Your task to perform on an android device: Go to display settings Image 0: 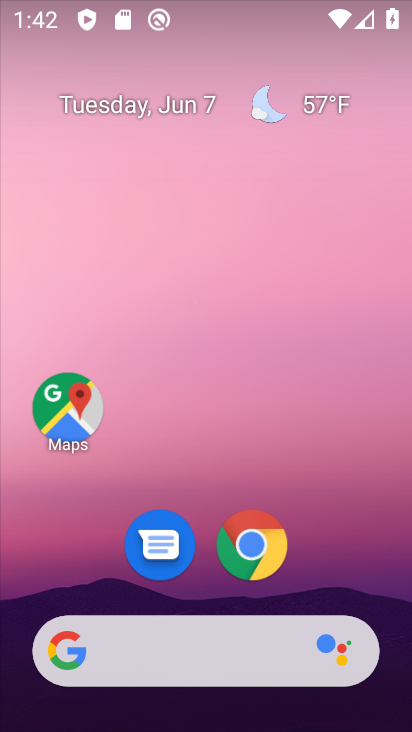
Step 0: drag from (354, 565) to (136, 3)
Your task to perform on an android device: Go to display settings Image 1: 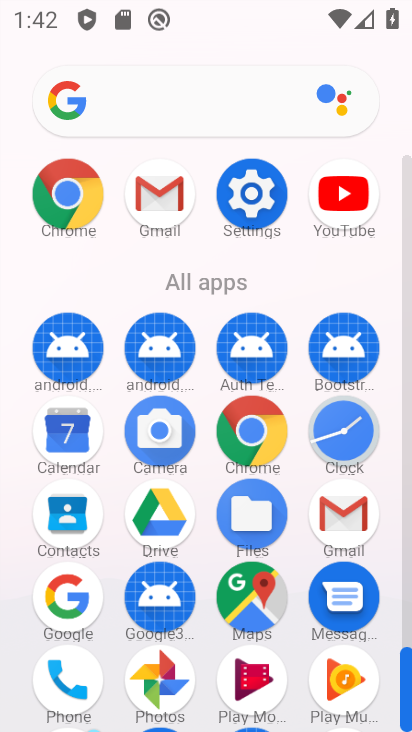
Step 1: click (250, 195)
Your task to perform on an android device: Go to display settings Image 2: 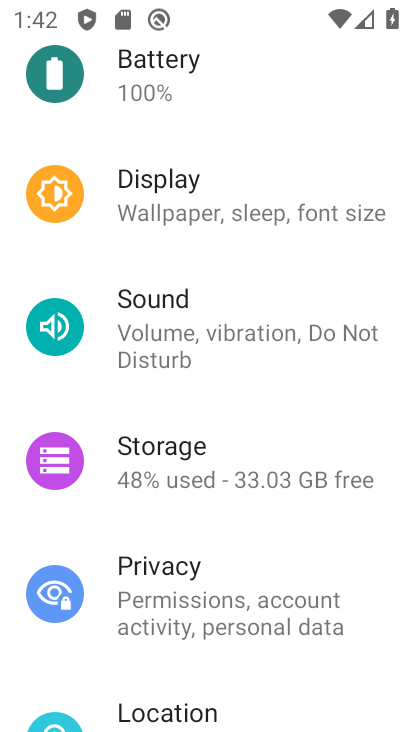
Step 2: click (214, 213)
Your task to perform on an android device: Go to display settings Image 3: 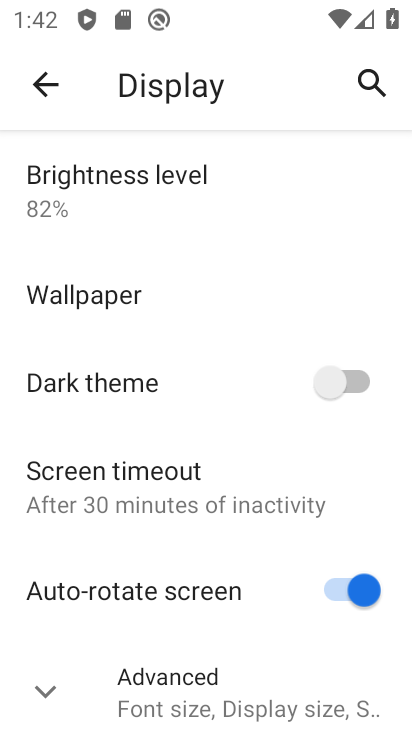
Step 3: task complete